Your task to perform on an android device: Open battery settings Image 0: 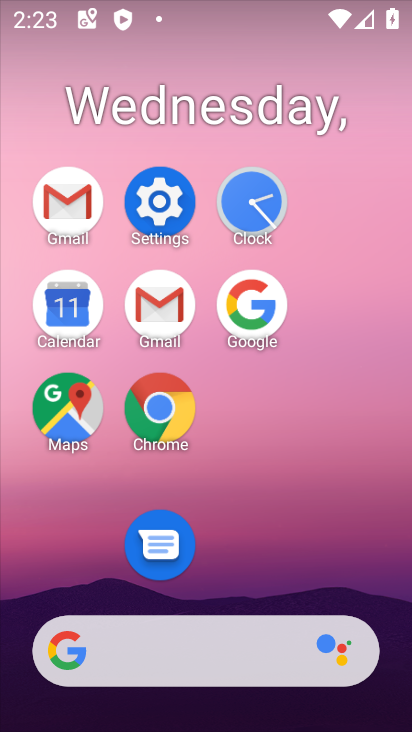
Step 0: click (170, 210)
Your task to perform on an android device: Open battery settings Image 1: 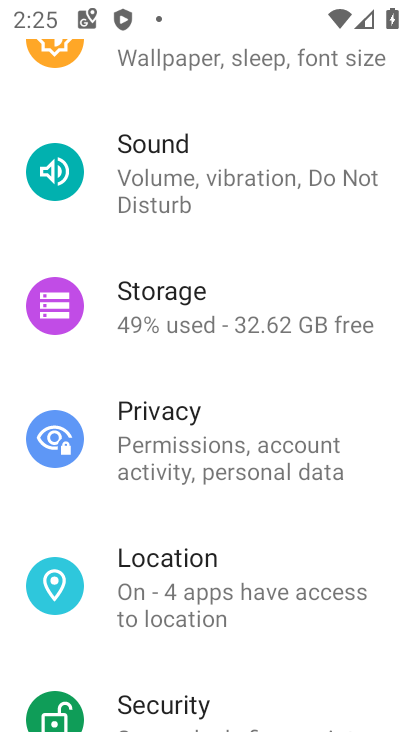
Step 1: drag from (270, 131) to (333, 534)
Your task to perform on an android device: Open battery settings Image 2: 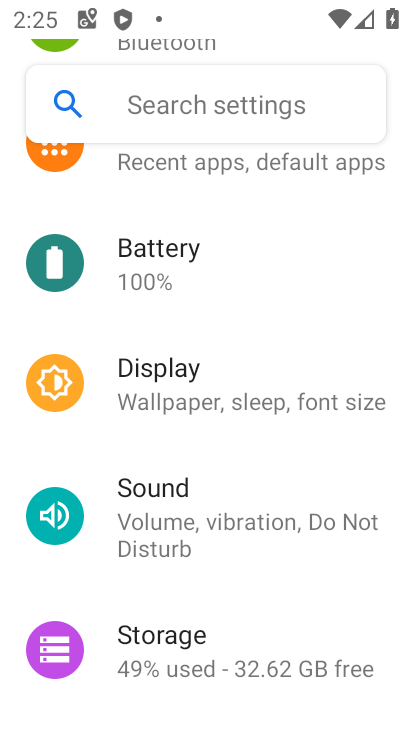
Step 2: click (226, 280)
Your task to perform on an android device: Open battery settings Image 3: 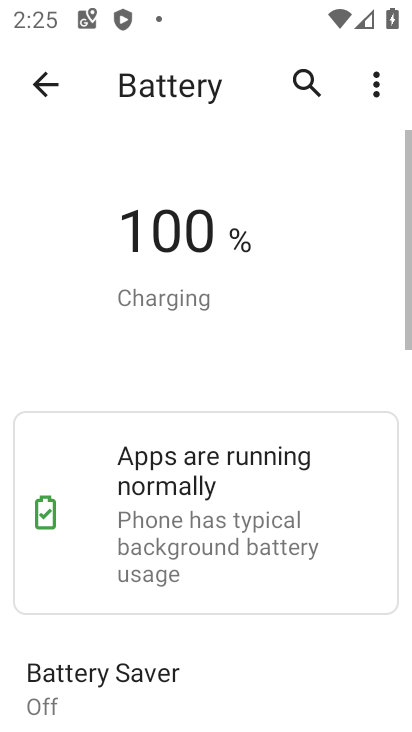
Step 3: task complete